Your task to perform on an android device: refresh tabs in the chrome app Image 0: 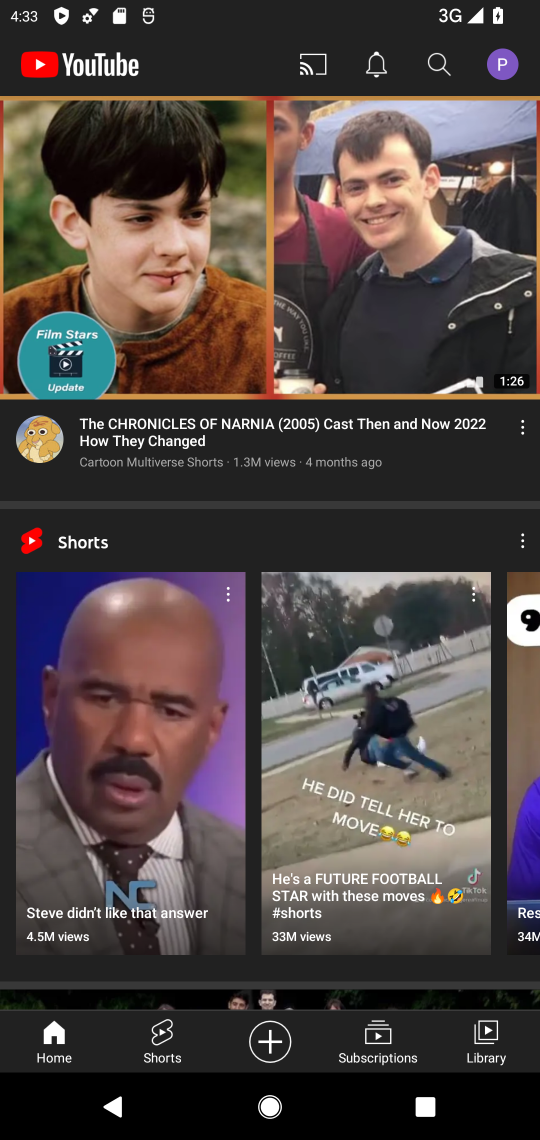
Step 0: task complete